Your task to perform on an android device: Find coffee shops on Maps Image 0: 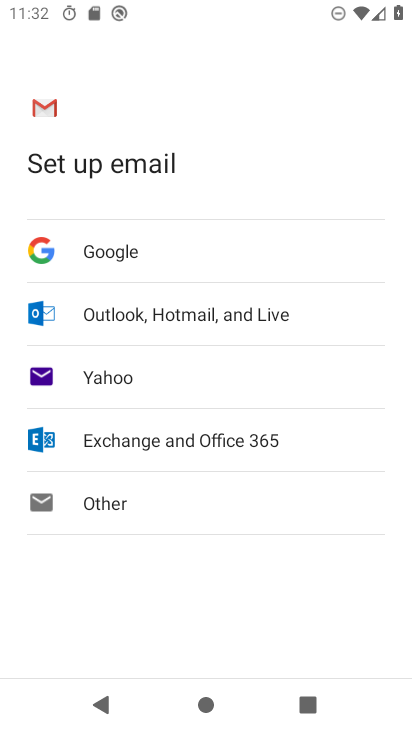
Step 0: press home button
Your task to perform on an android device: Find coffee shops on Maps Image 1: 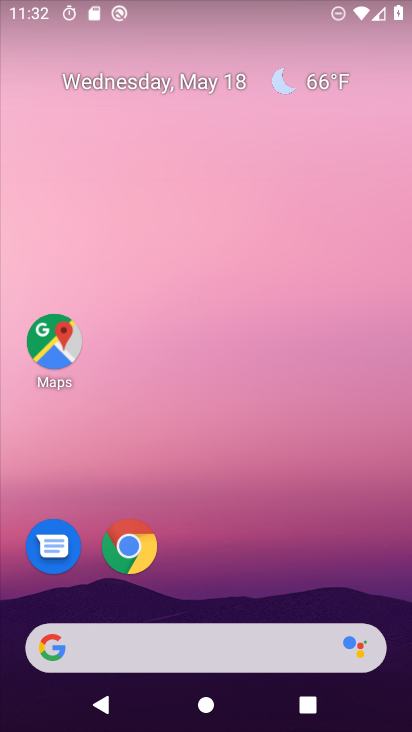
Step 1: click (54, 351)
Your task to perform on an android device: Find coffee shops on Maps Image 2: 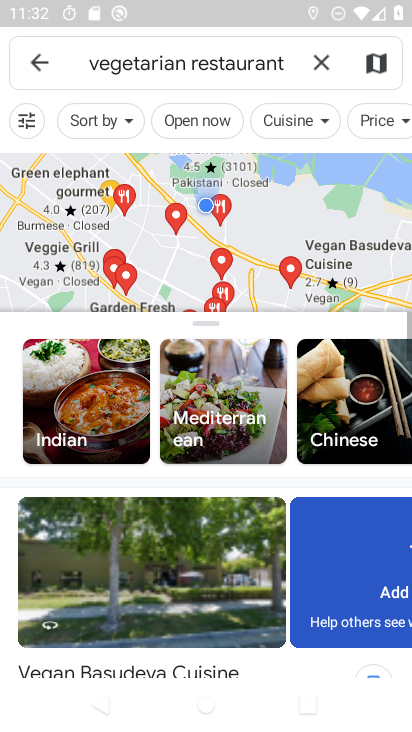
Step 2: click (317, 73)
Your task to perform on an android device: Find coffee shops on Maps Image 3: 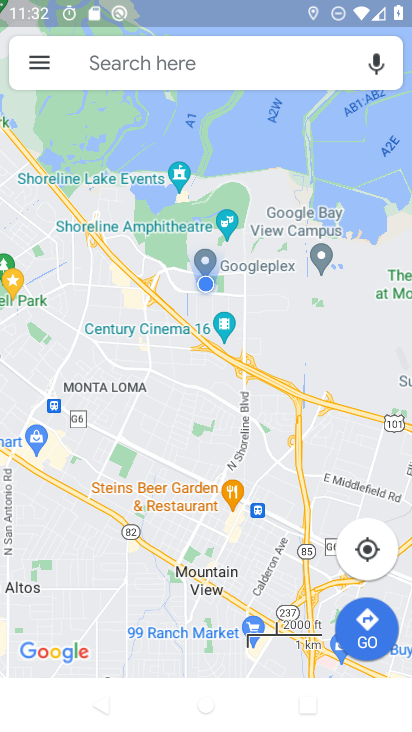
Step 3: click (198, 50)
Your task to perform on an android device: Find coffee shops on Maps Image 4: 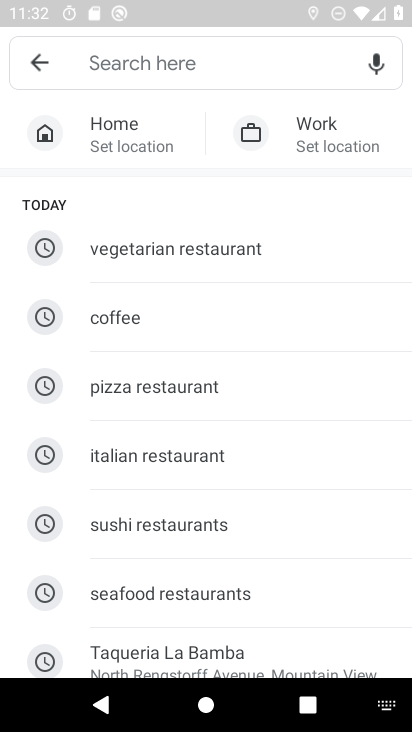
Step 4: click (115, 311)
Your task to perform on an android device: Find coffee shops on Maps Image 5: 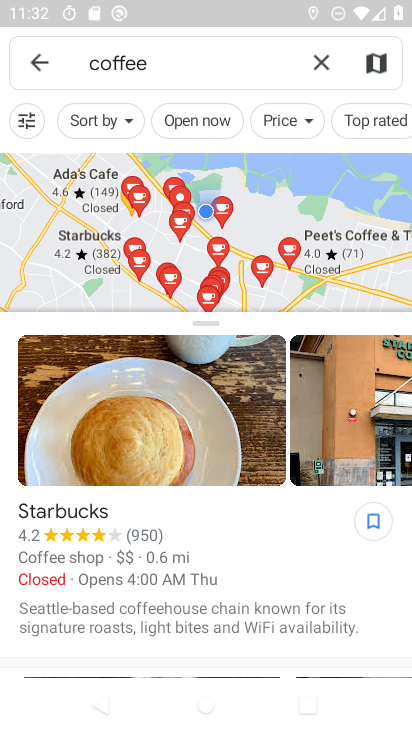
Step 5: task complete